Your task to perform on an android device: uninstall "NewsBreak: Local News & Alerts" Image 0: 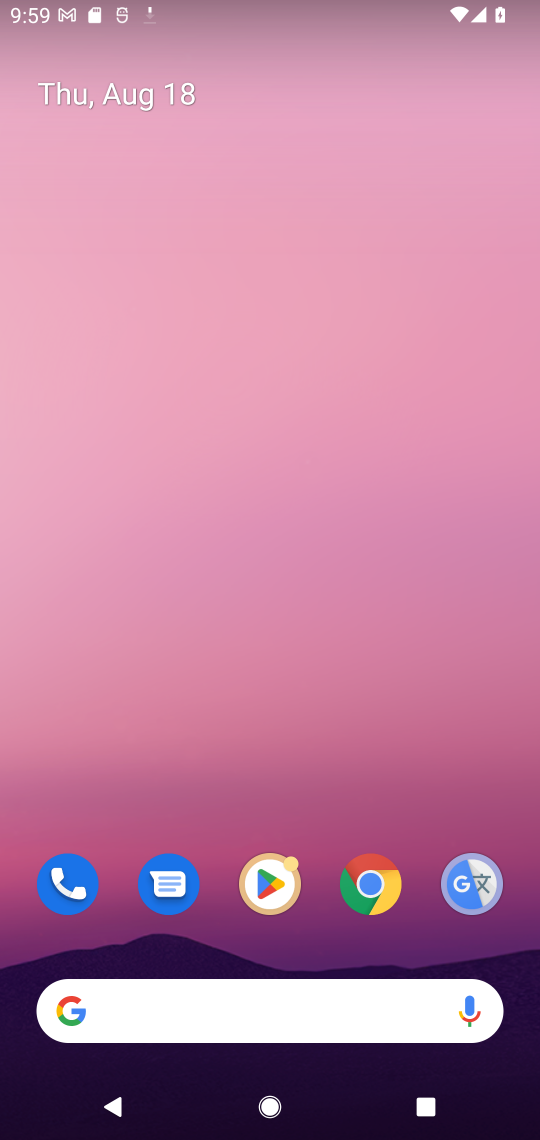
Step 0: click (273, 909)
Your task to perform on an android device: uninstall "NewsBreak: Local News & Alerts" Image 1: 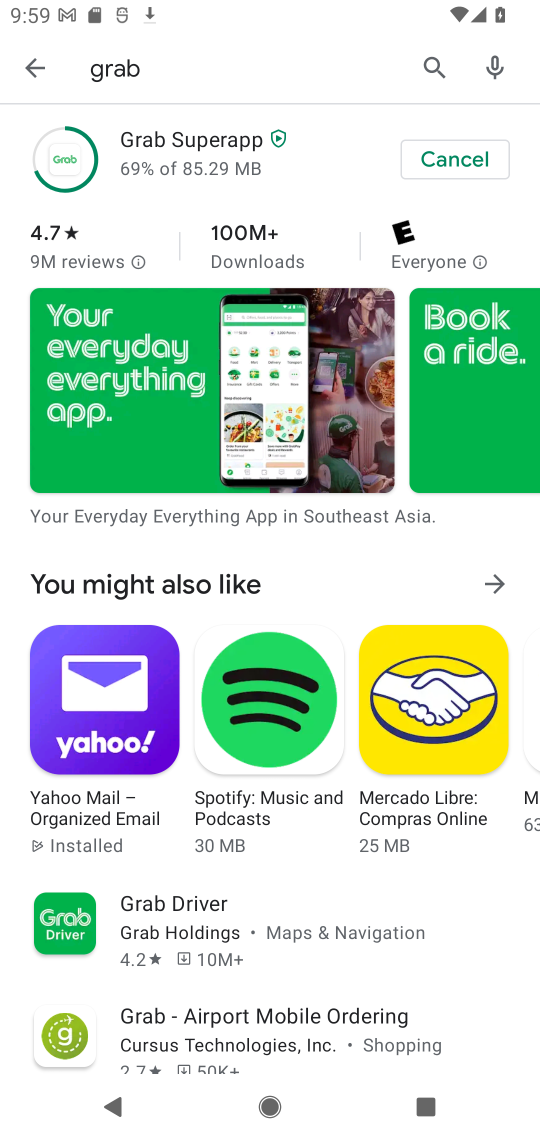
Step 1: click (445, 65)
Your task to perform on an android device: uninstall "NewsBreak: Local News & Alerts" Image 2: 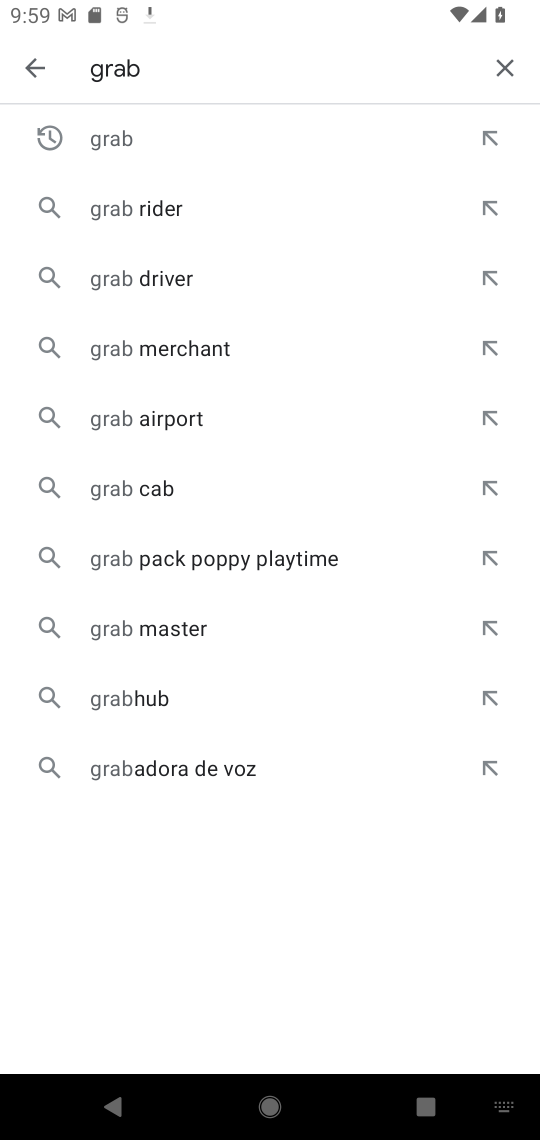
Step 2: click (524, 64)
Your task to perform on an android device: uninstall "NewsBreak: Local News & Alerts" Image 3: 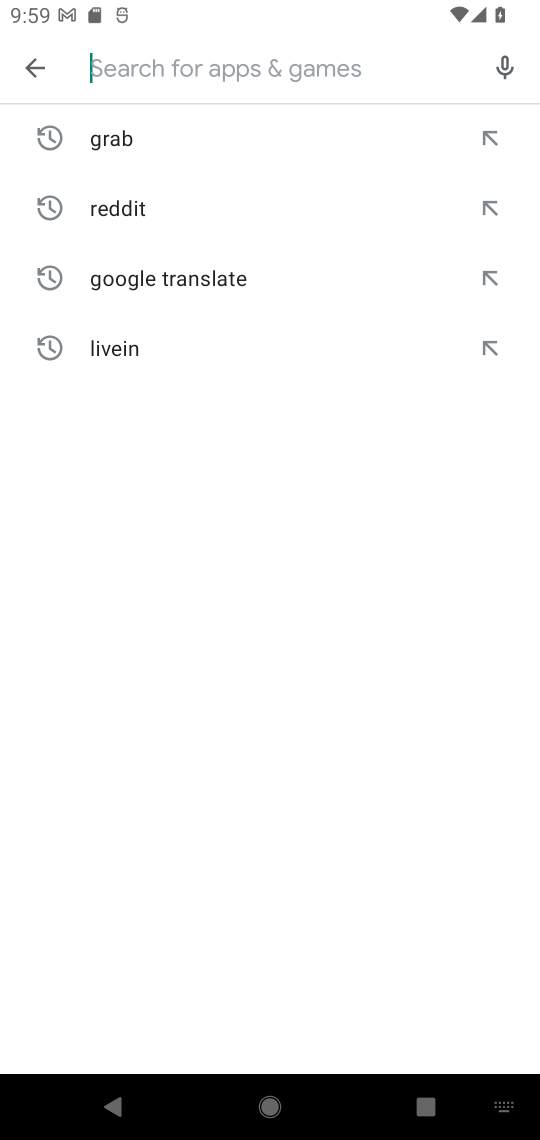
Step 3: type "newsbreak"
Your task to perform on an android device: uninstall "NewsBreak: Local News & Alerts" Image 4: 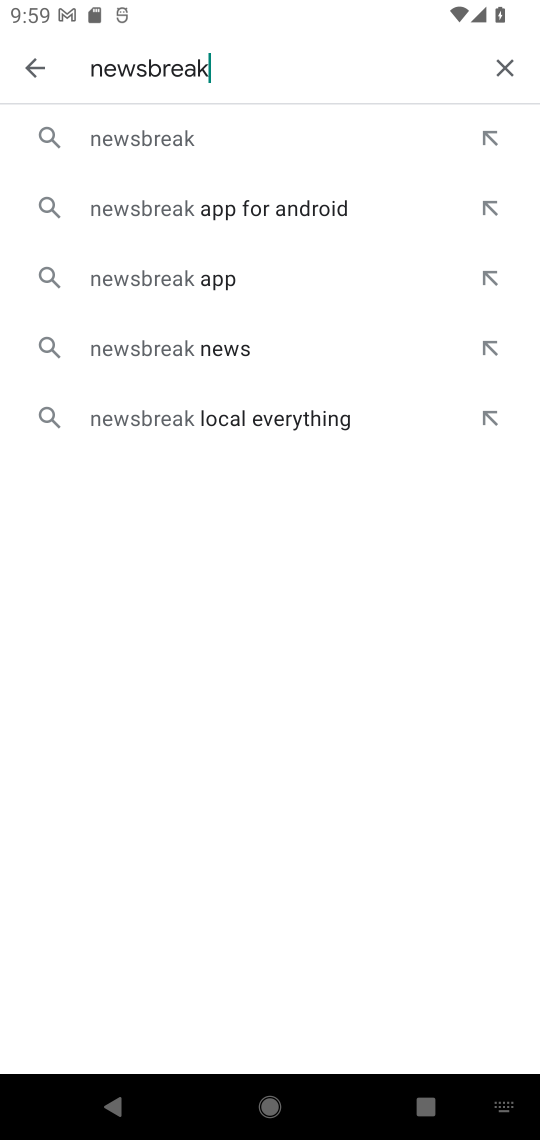
Step 4: click (110, 146)
Your task to perform on an android device: uninstall "NewsBreak: Local News & Alerts" Image 5: 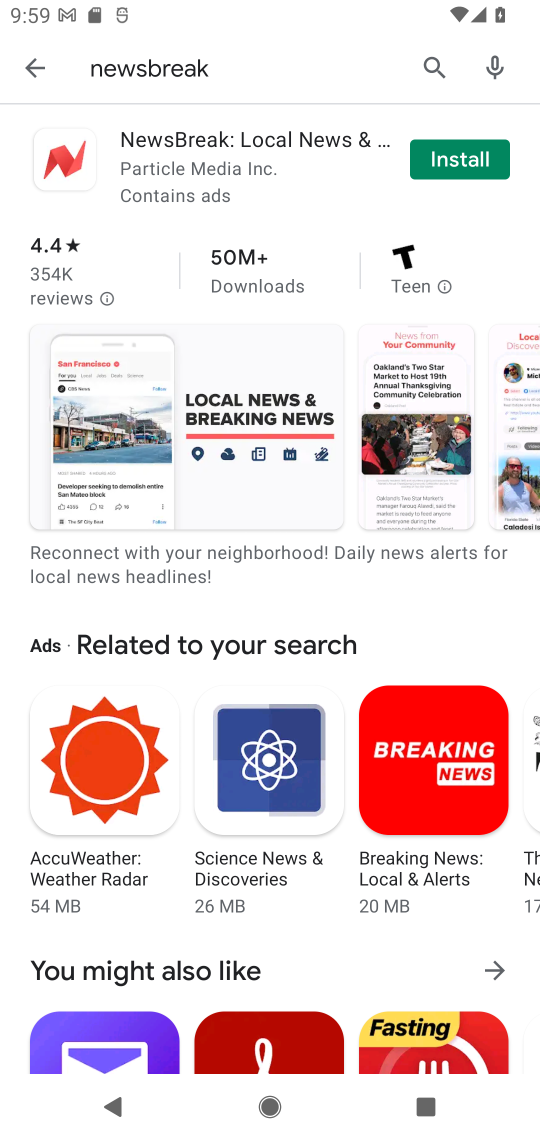
Step 5: click (459, 170)
Your task to perform on an android device: uninstall "NewsBreak: Local News & Alerts" Image 6: 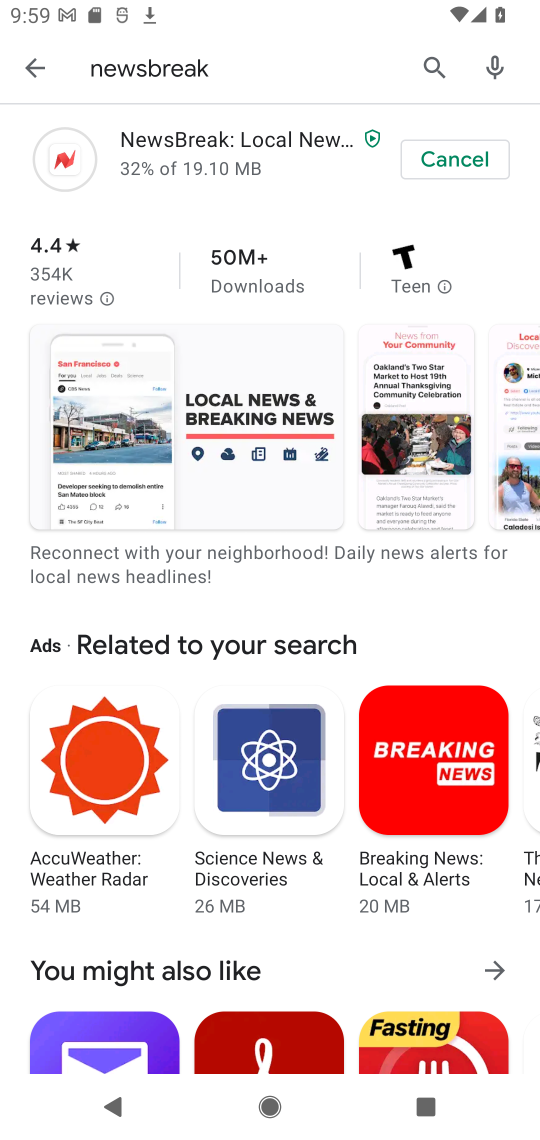
Step 6: task complete